Your task to perform on an android device: install app "ZOOM Cloud Meetings" Image 0: 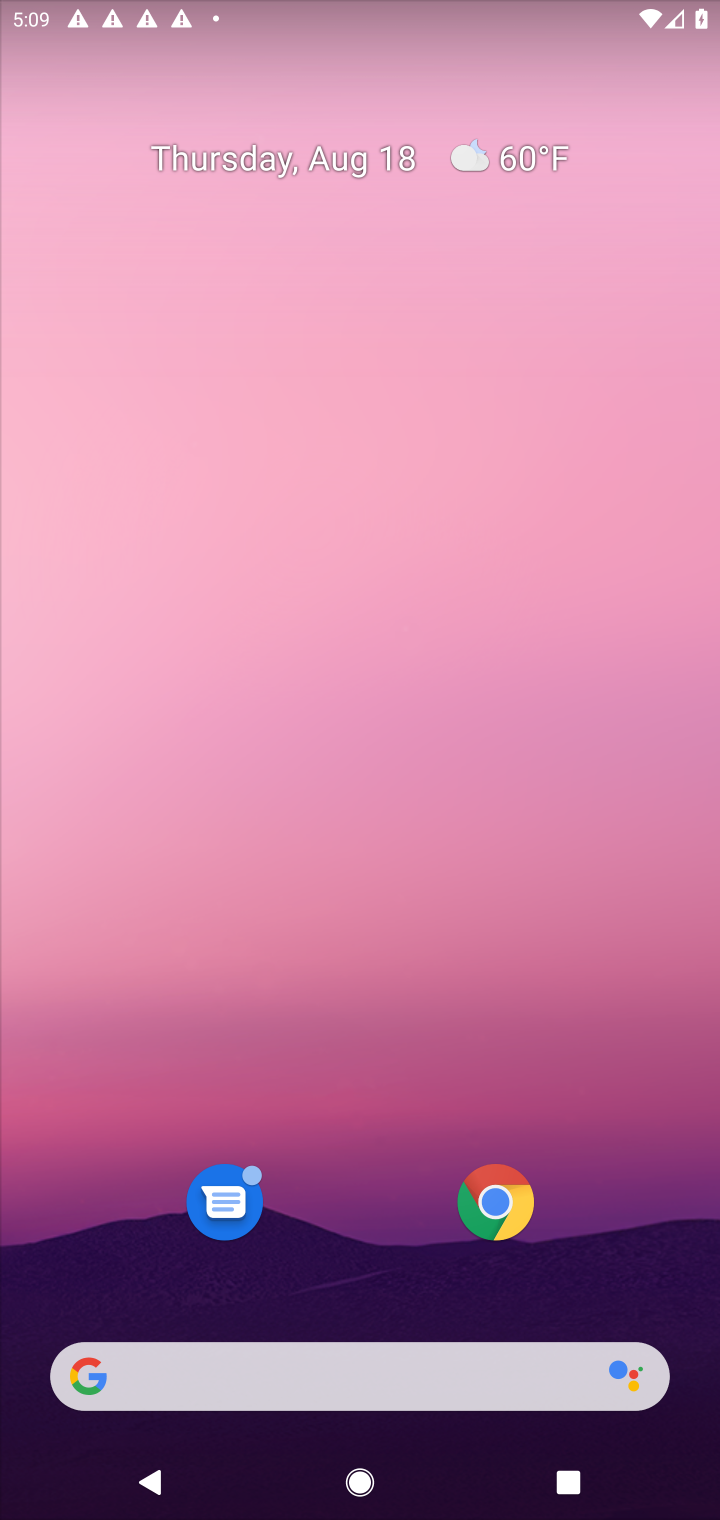
Step 0: drag from (343, 1369) to (314, 17)
Your task to perform on an android device: install app "ZOOM Cloud Meetings" Image 1: 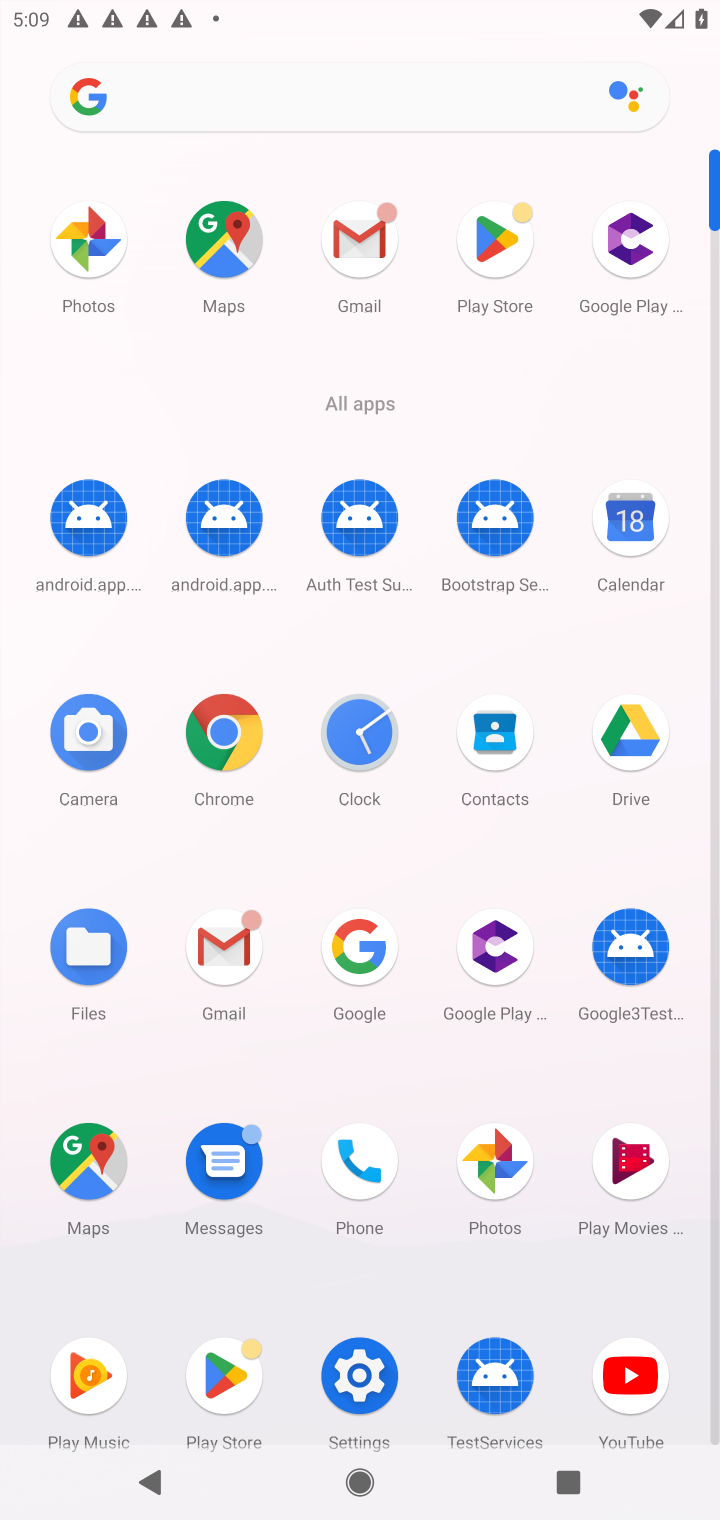
Step 1: click (479, 314)
Your task to perform on an android device: install app "ZOOM Cloud Meetings" Image 2: 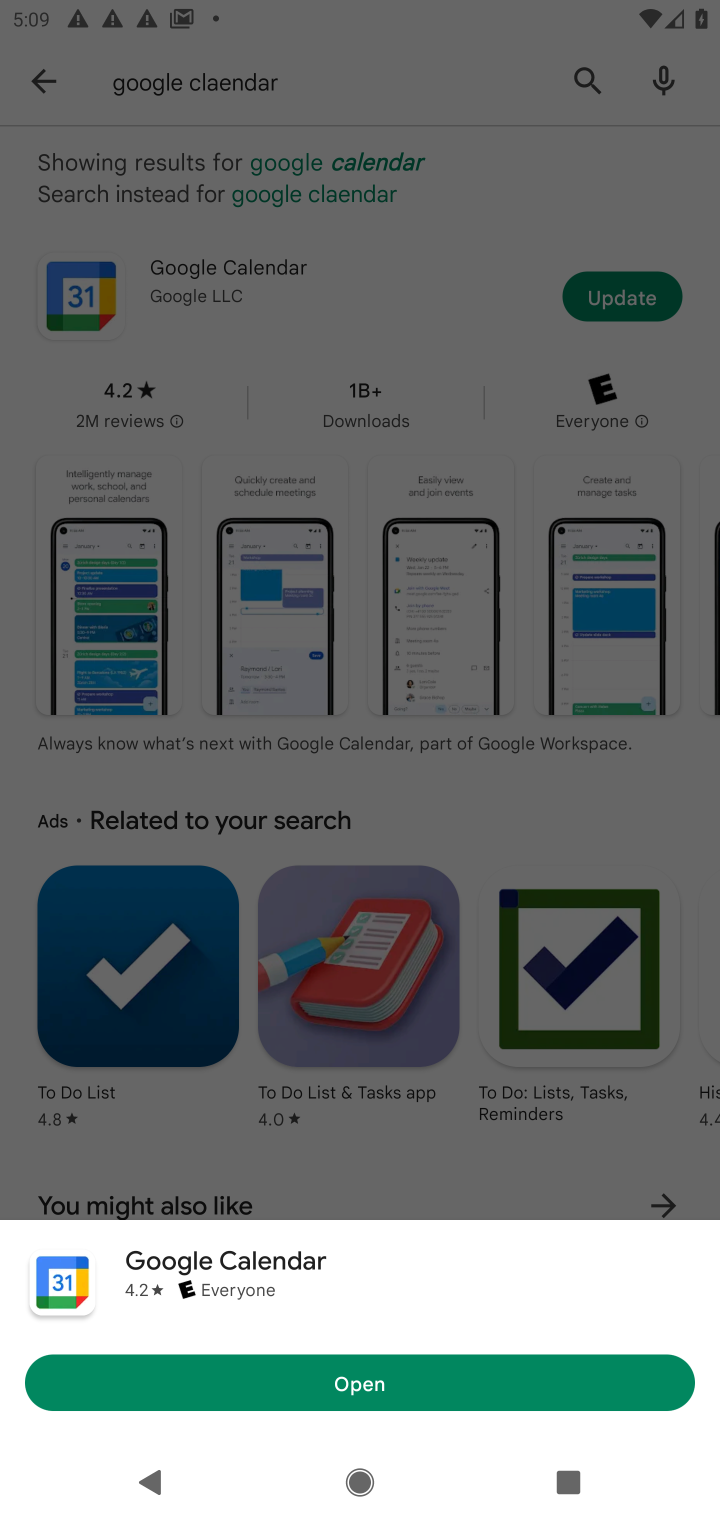
Step 2: press back button
Your task to perform on an android device: install app "ZOOM Cloud Meetings" Image 3: 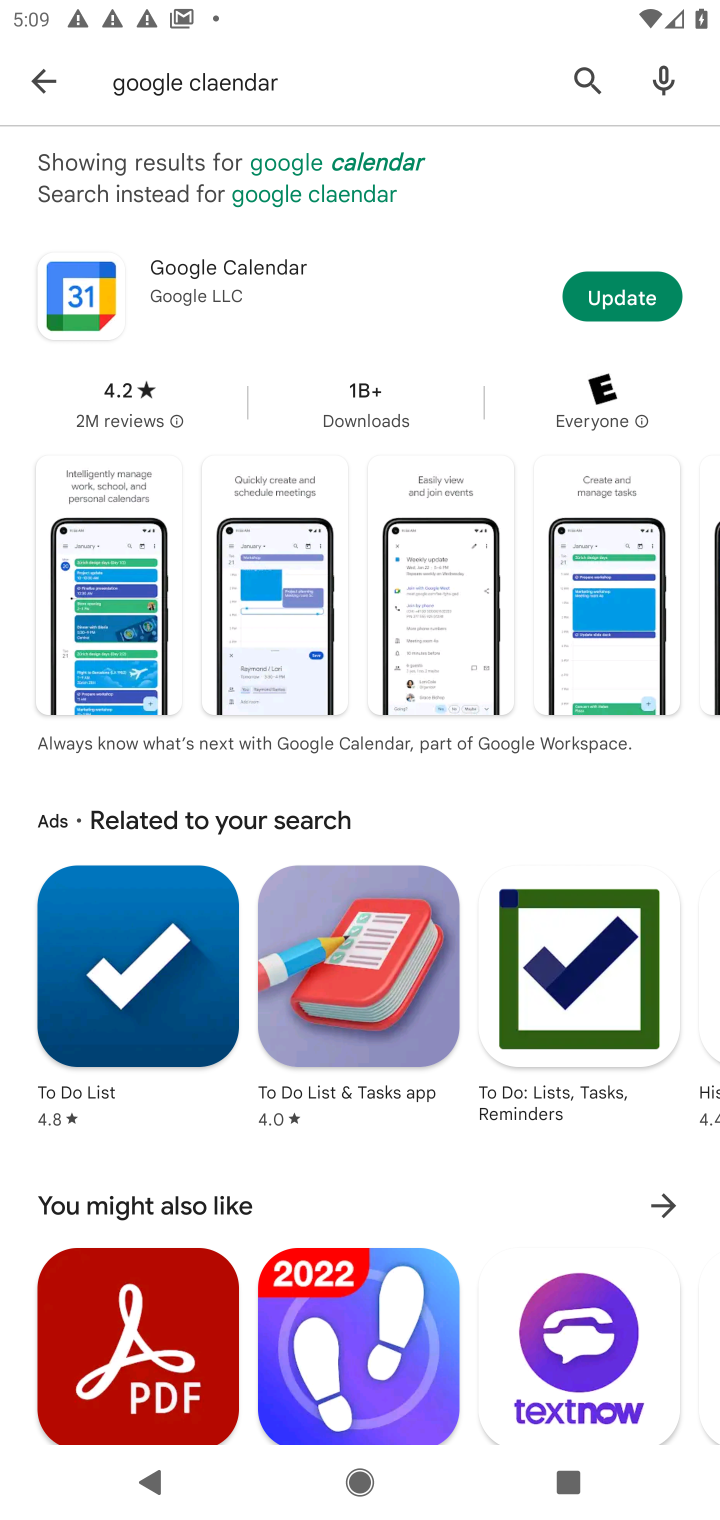
Step 3: click (581, 77)
Your task to perform on an android device: install app "ZOOM Cloud Meetings" Image 4: 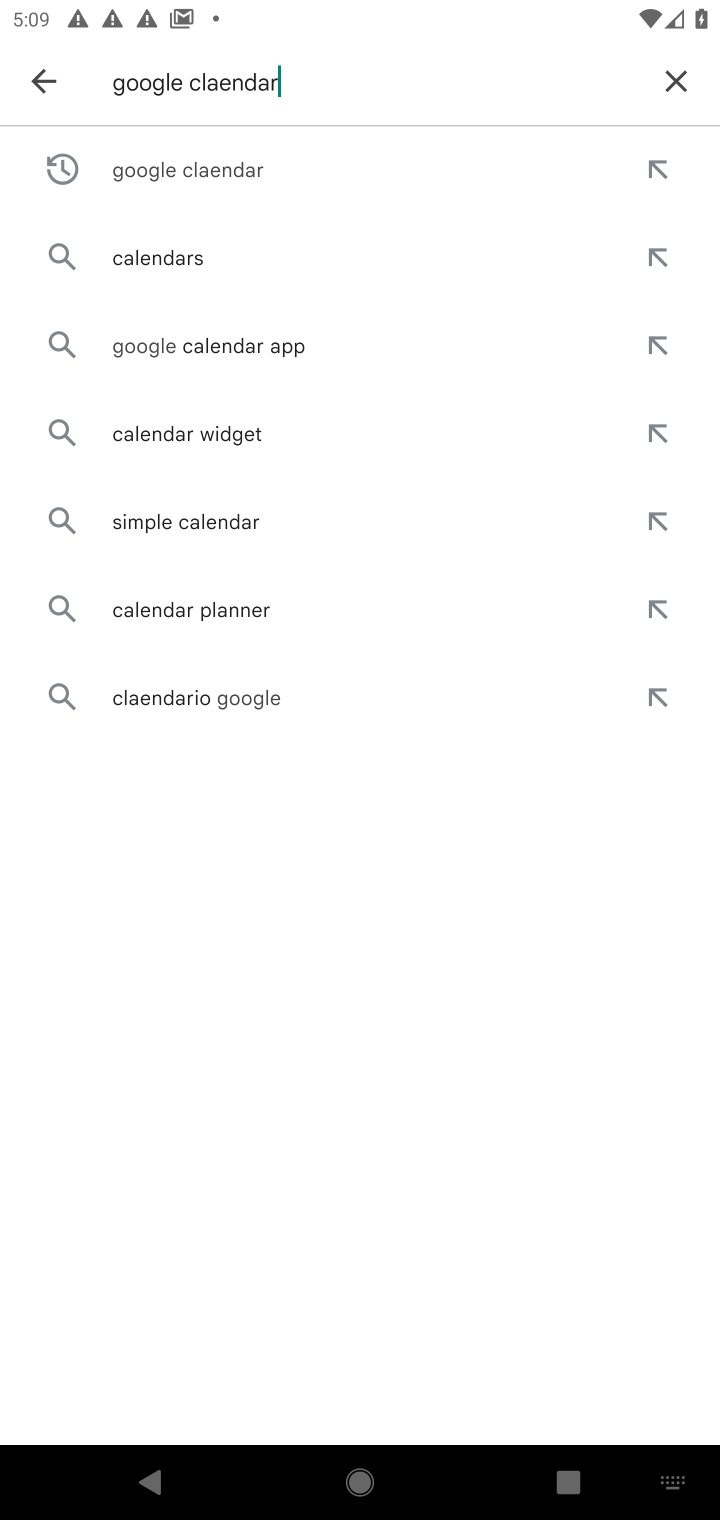
Step 4: click (668, 89)
Your task to perform on an android device: install app "ZOOM Cloud Meetings" Image 5: 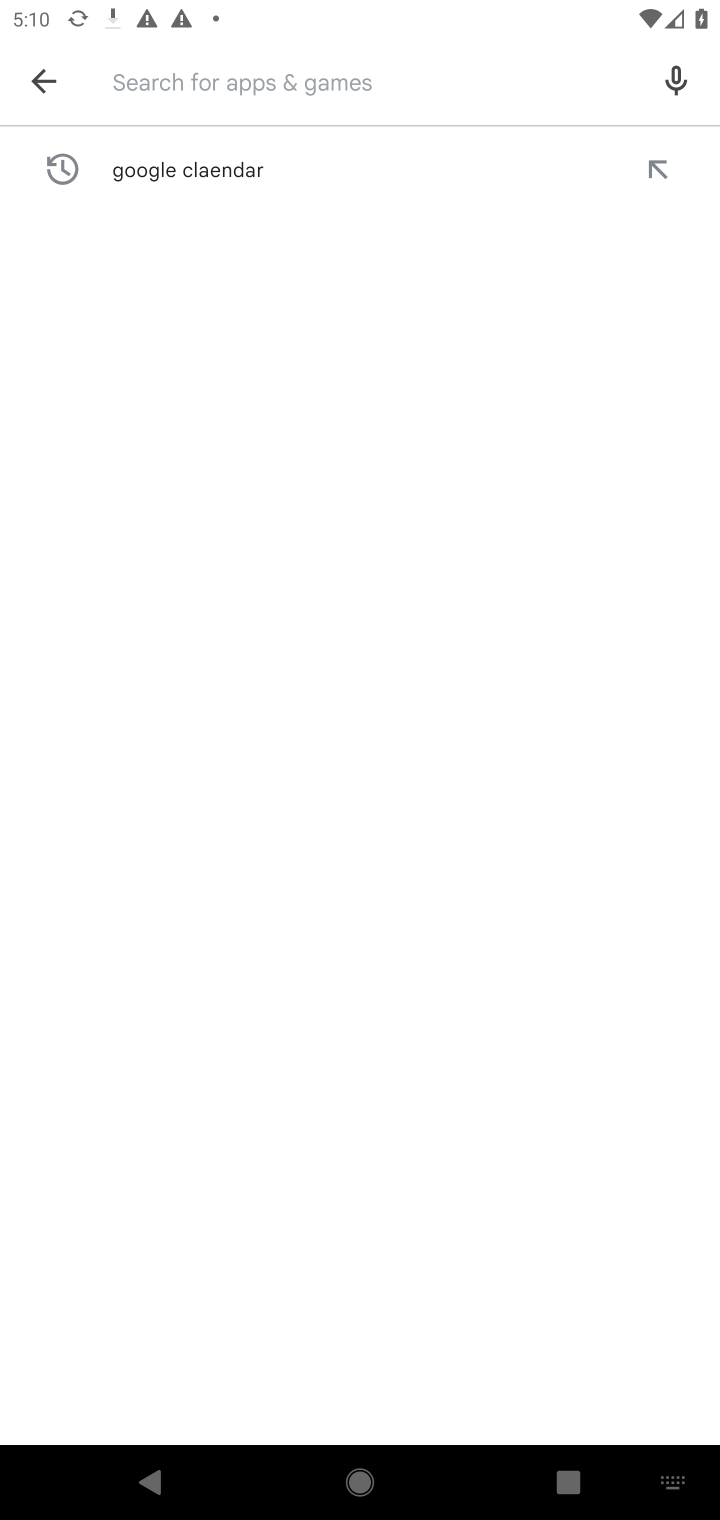
Step 5: type "zoom cloud meetings"
Your task to perform on an android device: install app "ZOOM Cloud Meetings" Image 6: 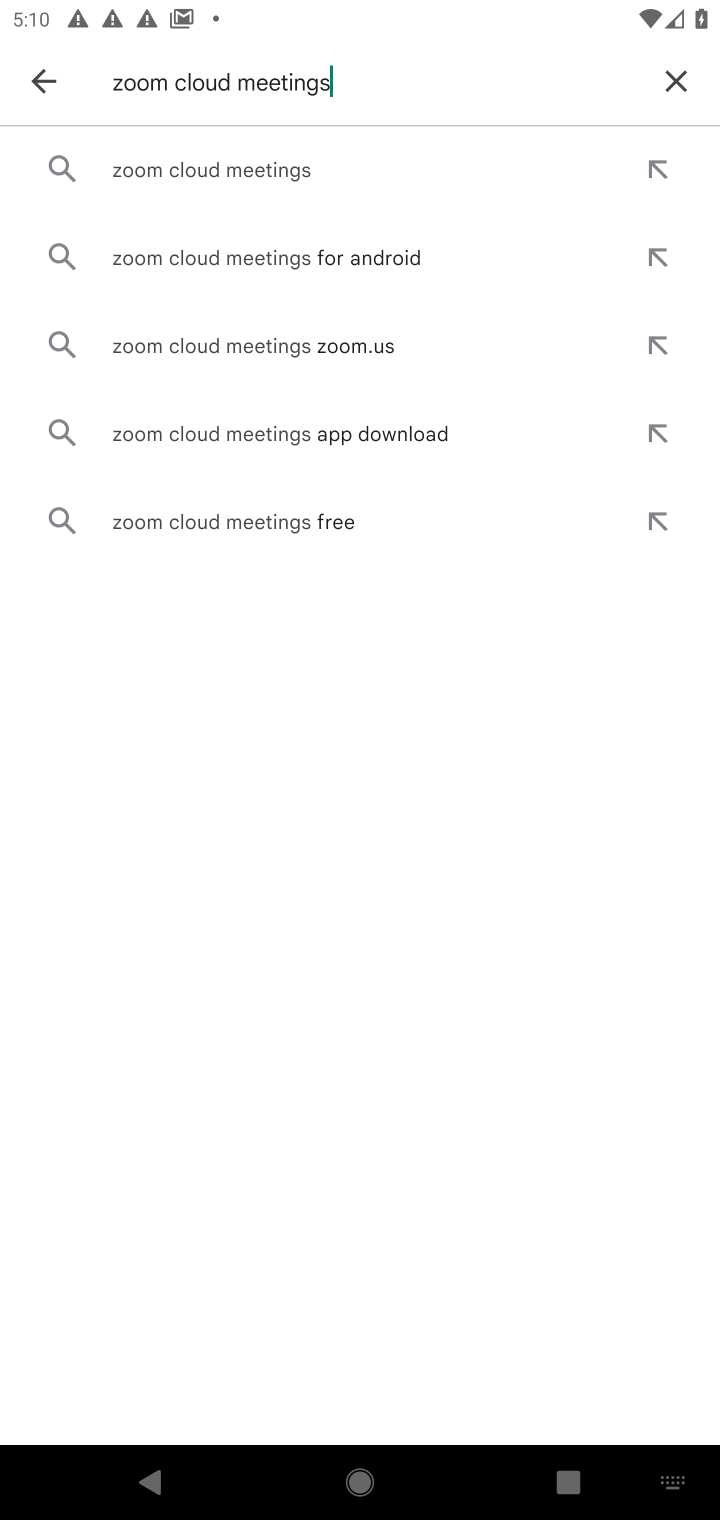
Step 6: click (264, 174)
Your task to perform on an android device: install app "ZOOM Cloud Meetings" Image 7: 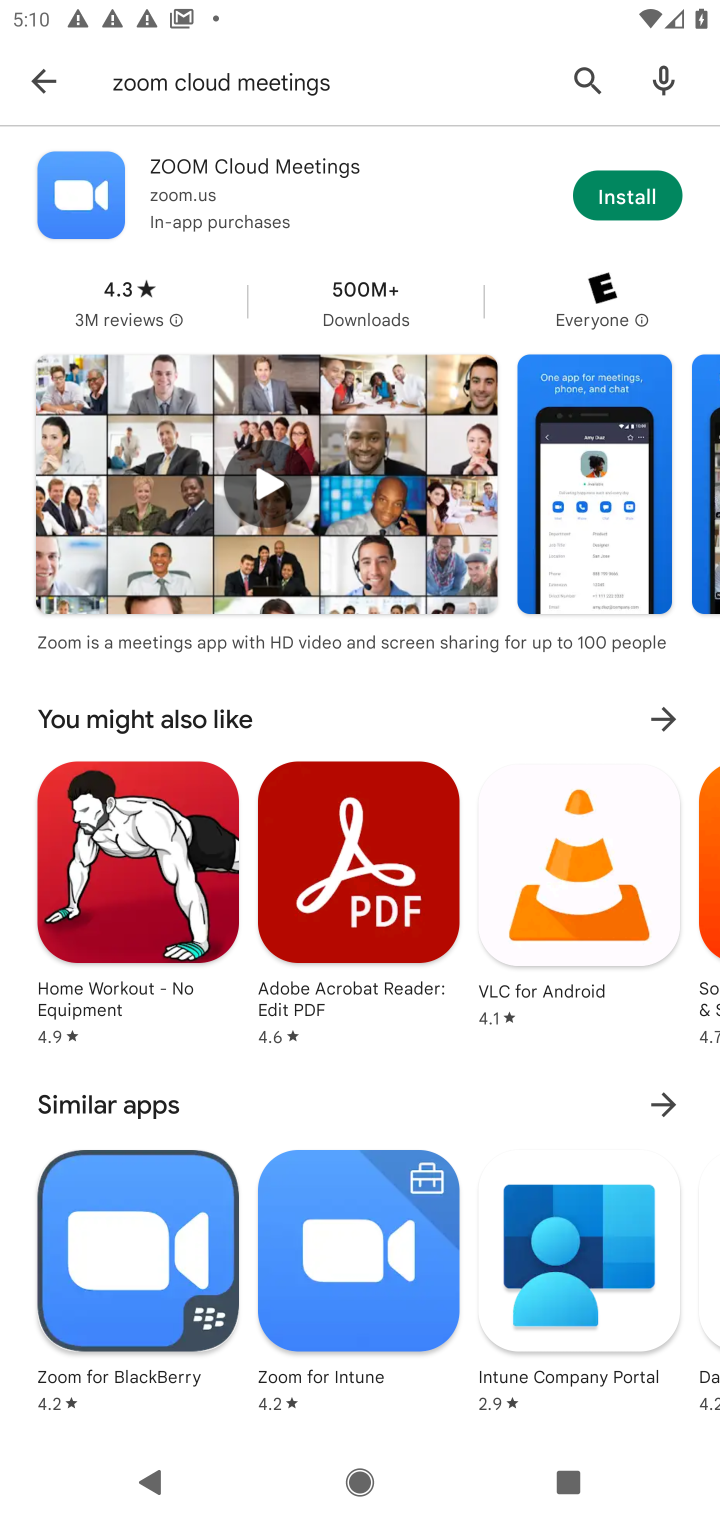
Step 7: click (604, 184)
Your task to perform on an android device: install app "ZOOM Cloud Meetings" Image 8: 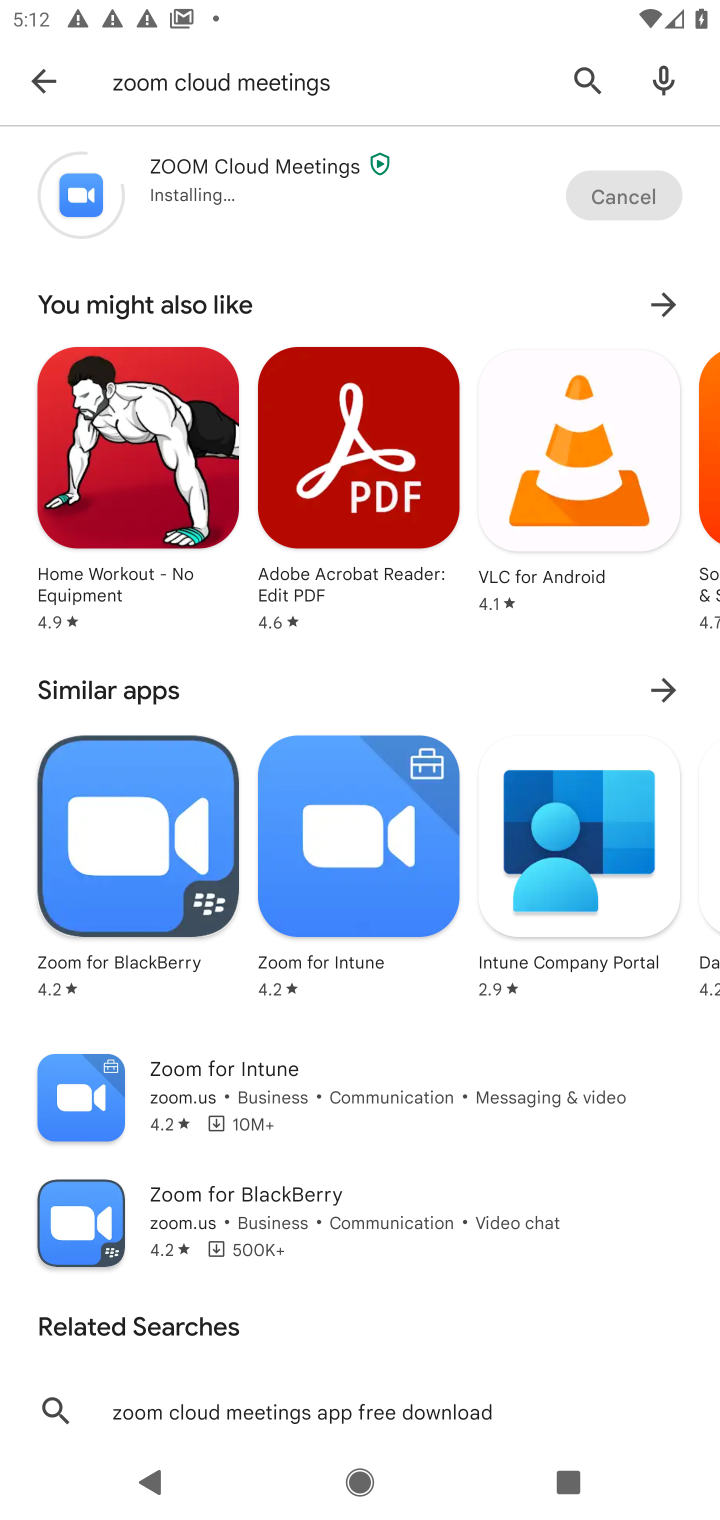
Step 8: task complete